Your task to perform on an android device: open chrome privacy settings Image 0: 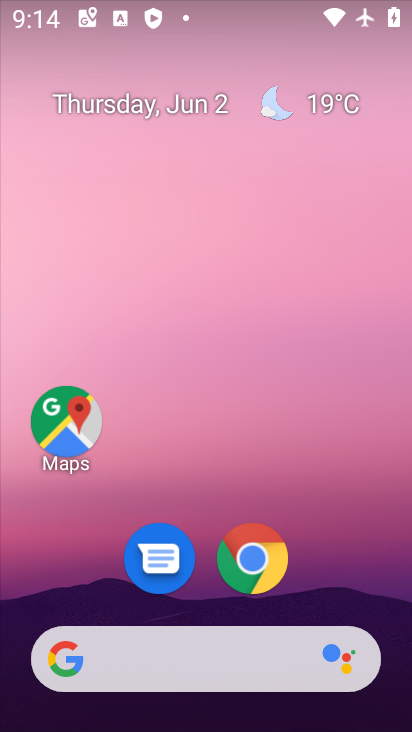
Step 0: click (254, 558)
Your task to perform on an android device: open chrome privacy settings Image 1: 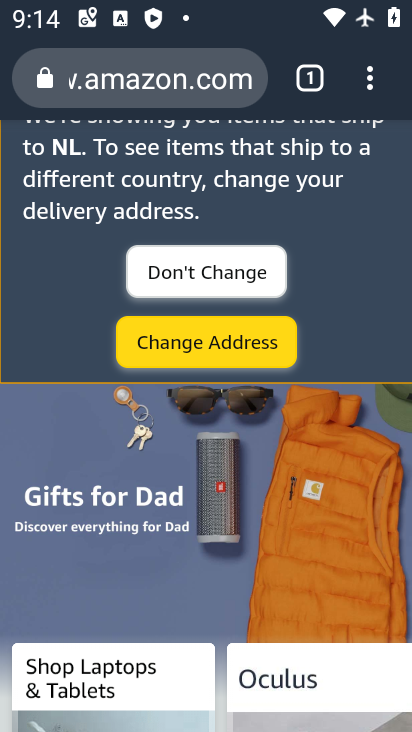
Step 1: click (366, 84)
Your task to perform on an android device: open chrome privacy settings Image 2: 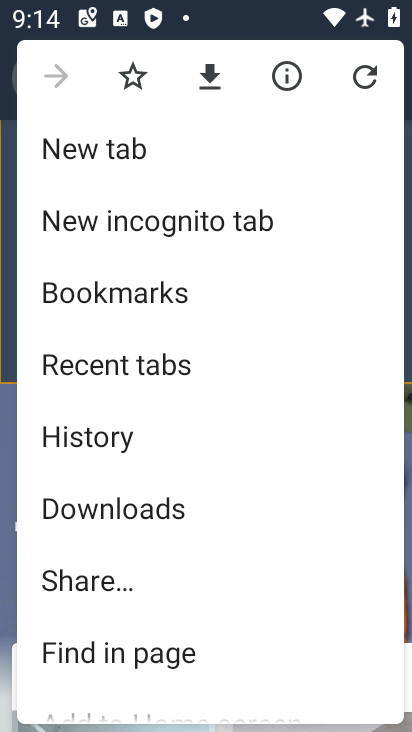
Step 2: drag from (186, 682) to (220, 217)
Your task to perform on an android device: open chrome privacy settings Image 3: 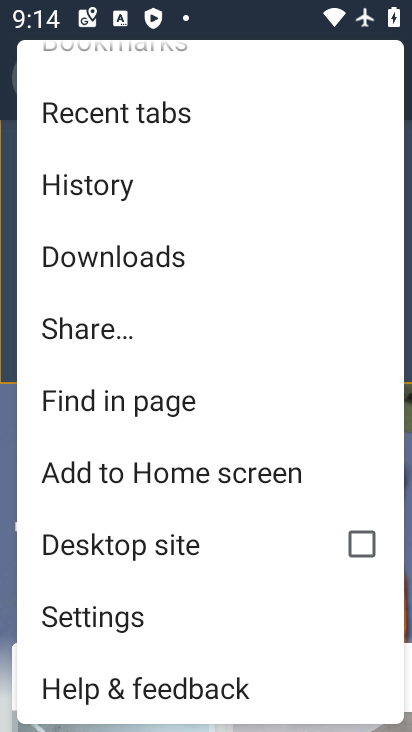
Step 3: click (128, 607)
Your task to perform on an android device: open chrome privacy settings Image 4: 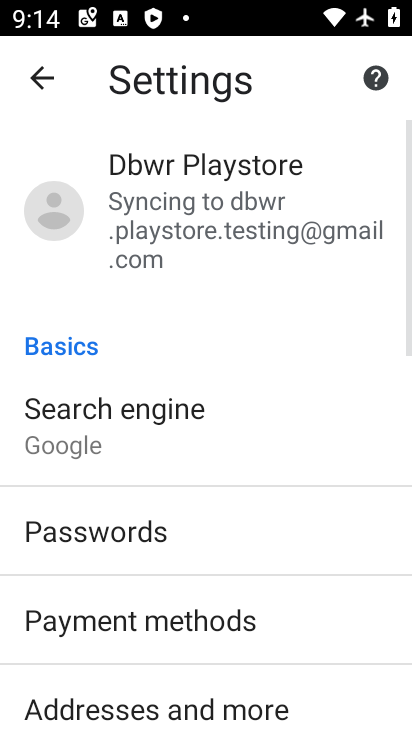
Step 4: drag from (274, 664) to (262, 131)
Your task to perform on an android device: open chrome privacy settings Image 5: 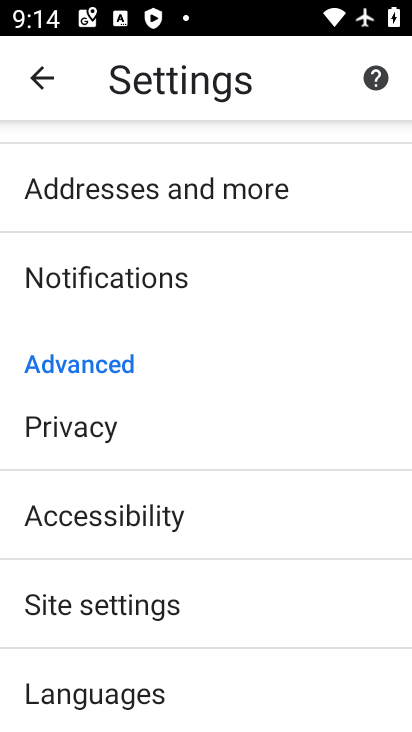
Step 5: drag from (236, 685) to (255, 569)
Your task to perform on an android device: open chrome privacy settings Image 6: 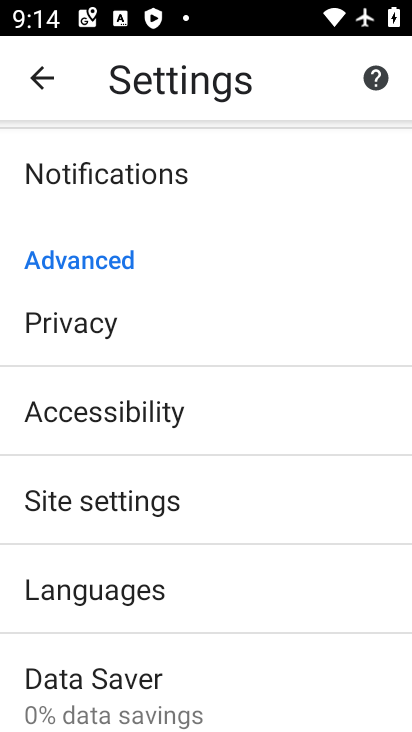
Step 6: click (72, 330)
Your task to perform on an android device: open chrome privacy settings Image 7: 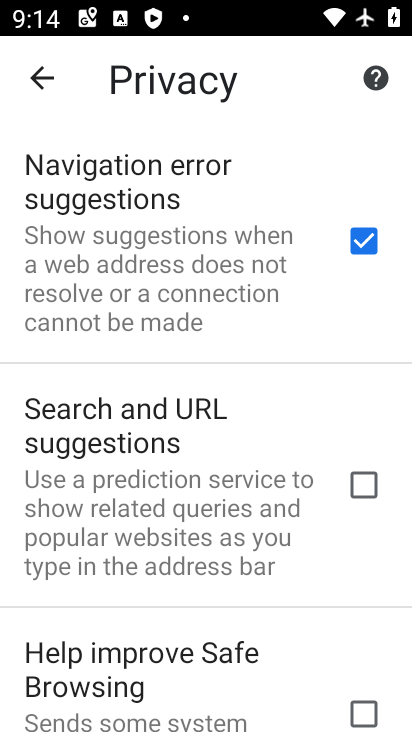
Step 7: task complete